Your task to perform on an android device: What's the weather today? Image 0: 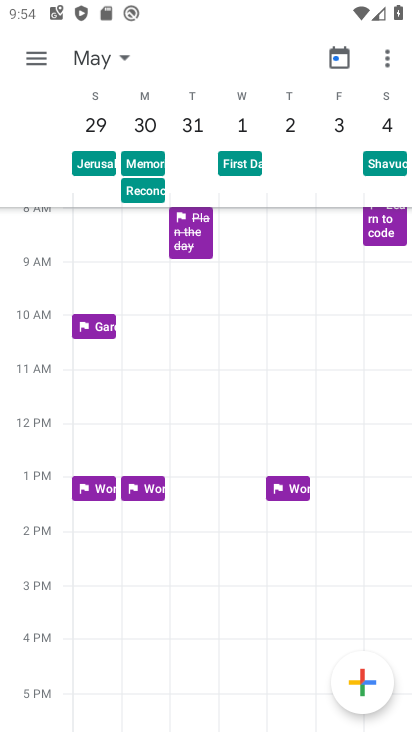
Step 0: press home button
Your task to perform on an android device: What's the weather today? Image 1: 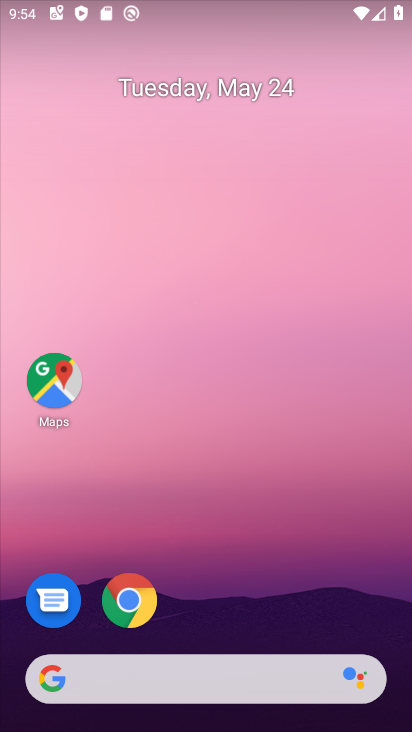
Step 1: drag from (205, 610) to (183, 155)
Your task to perform on an android device: What's the weather today? Image 2: 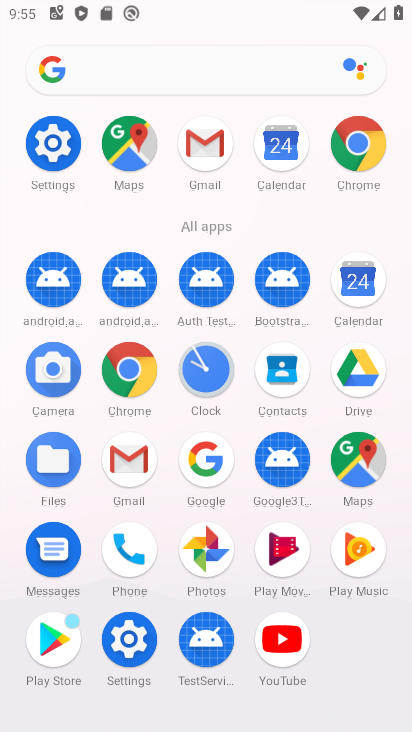
Step 2: click (209, 474)
Your task to perform on an android device: What's the weather today? Image 3: 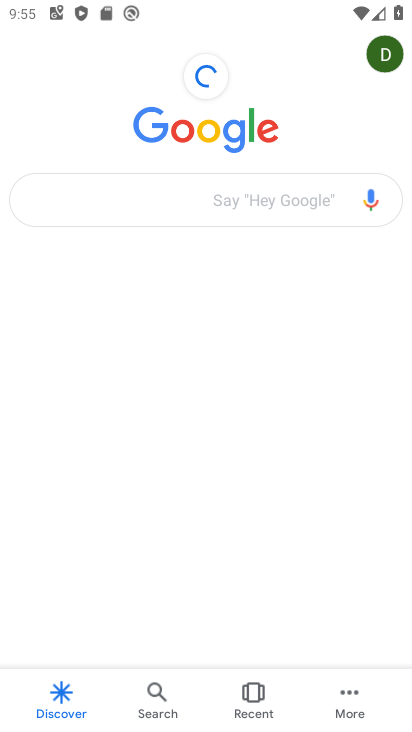
Step 3: click (157, 194)
Your task to perform on an android device: What's the weather today? Image 4: 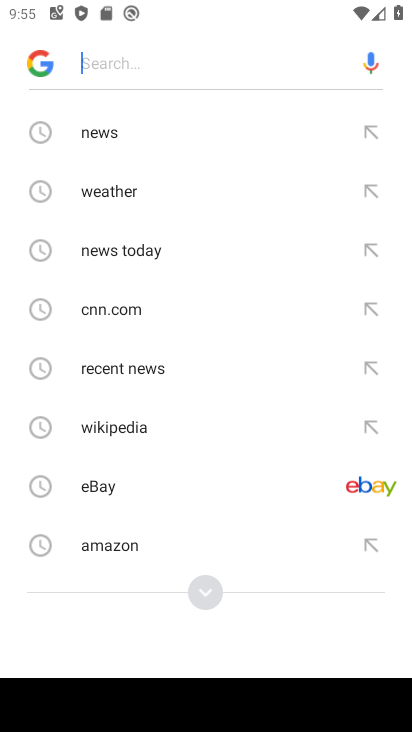
Step 4: click (123, 184)
Your task to perform on an android device: What's the weather today? Image 5: 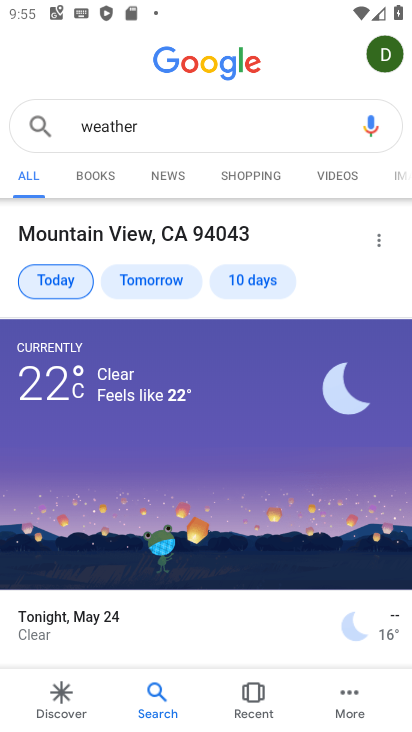
Step 5: task complete